Your task to perform on an android device: Open battery settings Image 0: 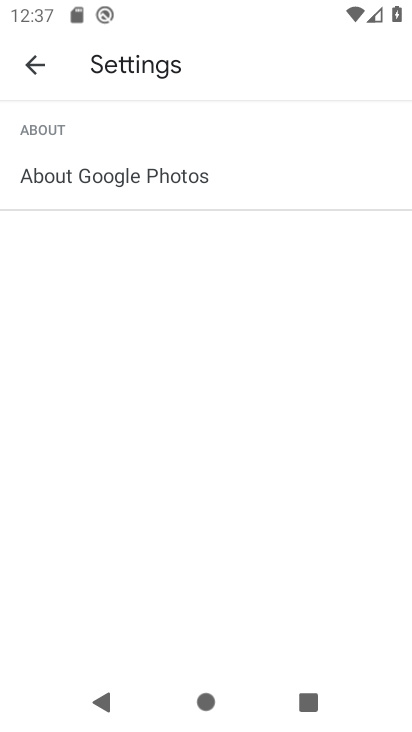
Step 0: drag from (314, 485) to (230, 210)
Your task to perform on an android device: Open battery settings Image 1: 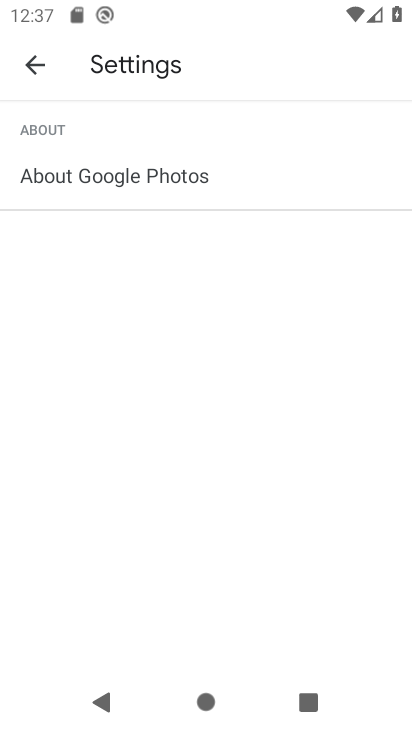
Step 1: press home button
Your task to perform on an android device: Open battery settings Image 2: 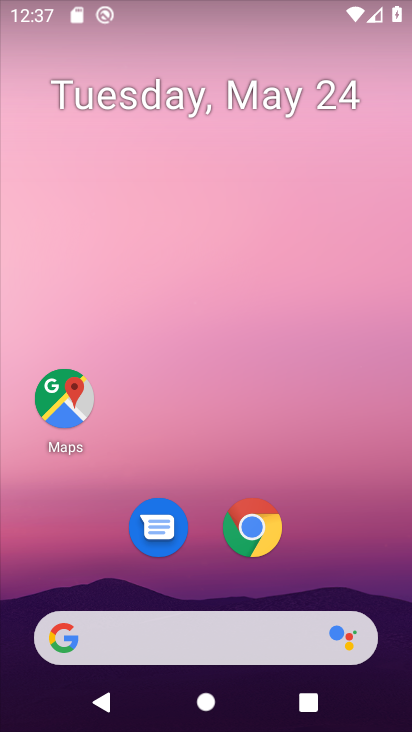
Step 2: drag from (333, 503) to (199, 22)
Your task to perform on an android device: Open battery settings Image 3: 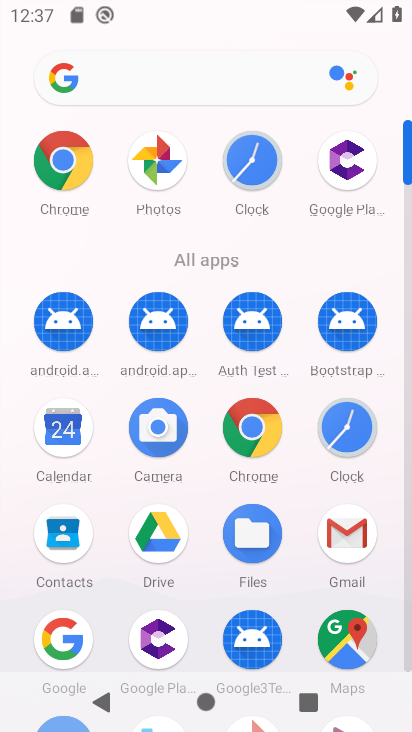
Step 3: drag from (201, 590) to (163, 180)
Your task to perform on an android device: Open battery settings Image 4: 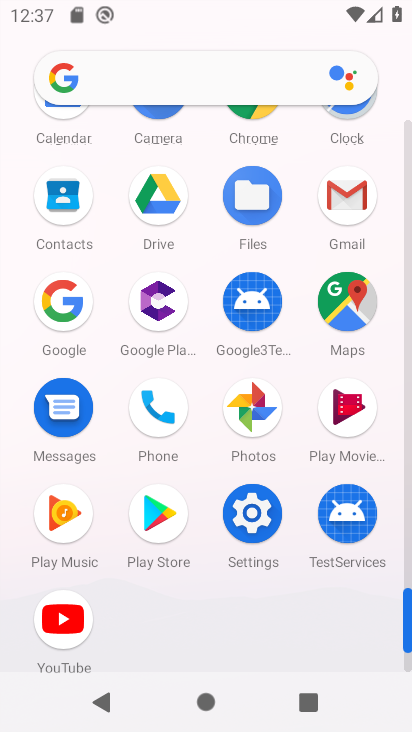
Step 4: click (255, 503)
Your task to perform on an android device: Open battery settings Image 5: 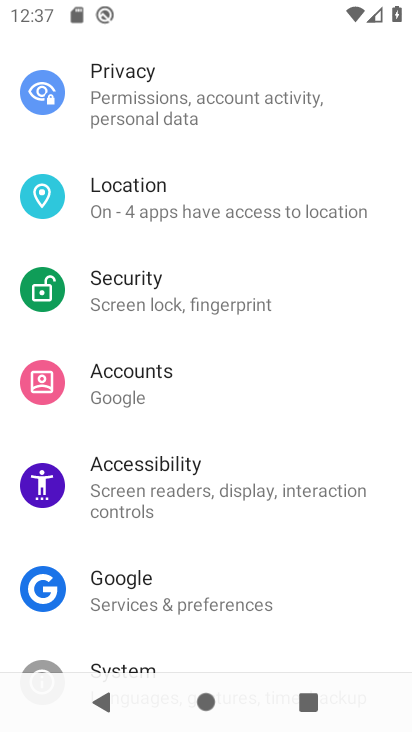
Step 5: drag from (234, 151) to (346, 675)
Your task to perform on an android device: Open battery settings Image 6: 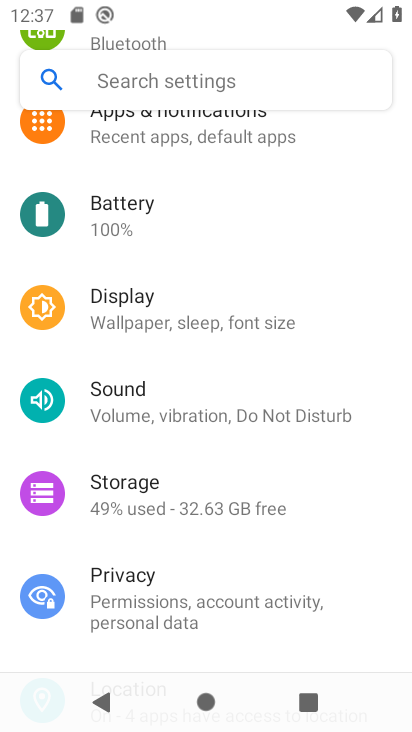
Step 6: click (108, 209)
Your task to perform on an android device: Open battery settings Image 7: 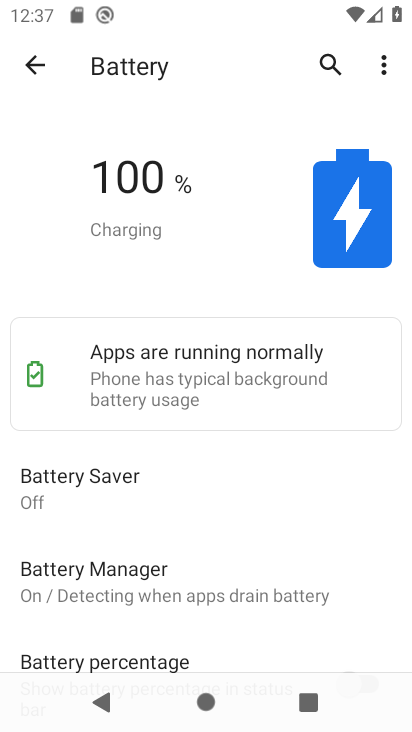
Step 7: task complete